Your task to perform on an android device: allow cookies in the chrome app Image 0: 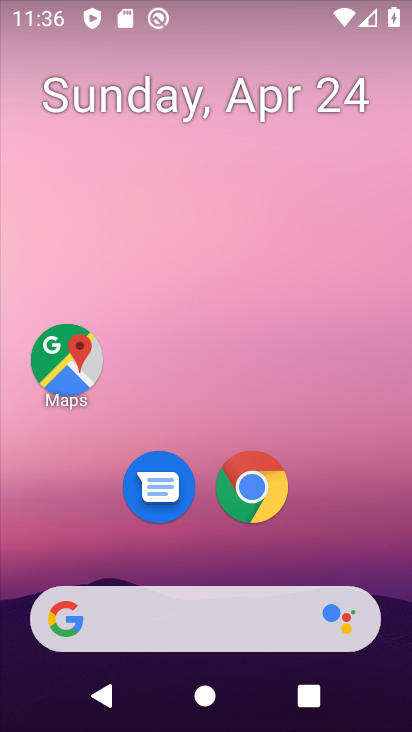
Step 0: drag from (400, 647) to (325, 49)
Your task to perform on an android device: allow cookies in the chrome app Image 1: 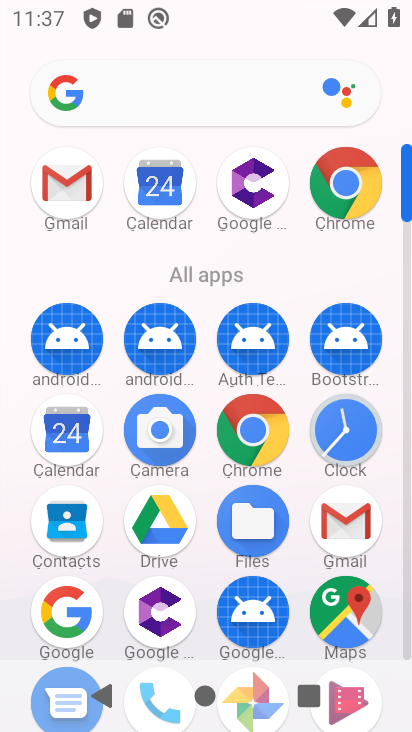
Step 1: click (370, 206)
Your task to perform on an android device: allow cookies in the chrome app Image 2: 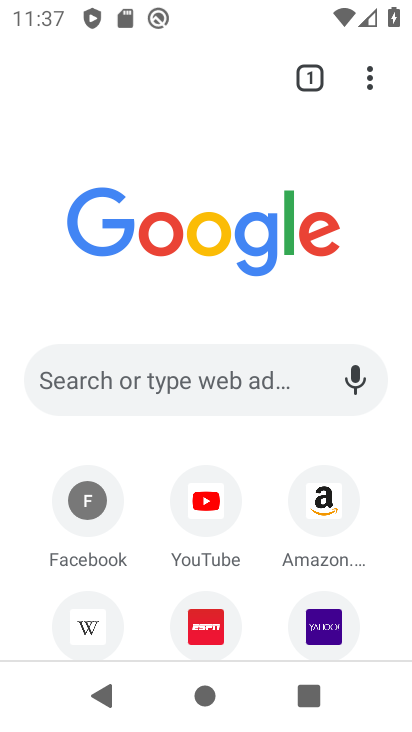
Step 2: click (373, 75)
Your task to perform on an android device: allow cookies in the chrome app Image 3: 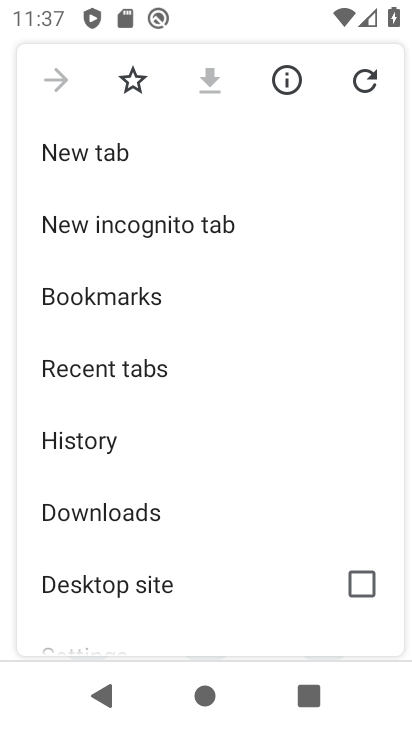
Step 3: click (140, 454)
Your task to perform on an android device: allow cookies in the chrome app Image 4: 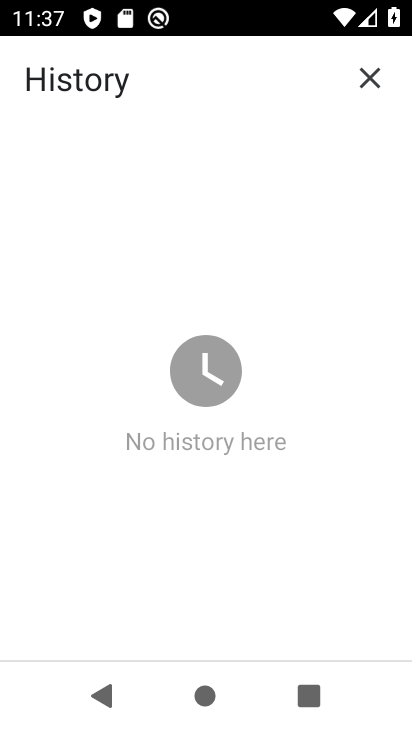
Step 4: task complete